Your task to perform on an android device: Show me popular games on the Play Store Image 0: 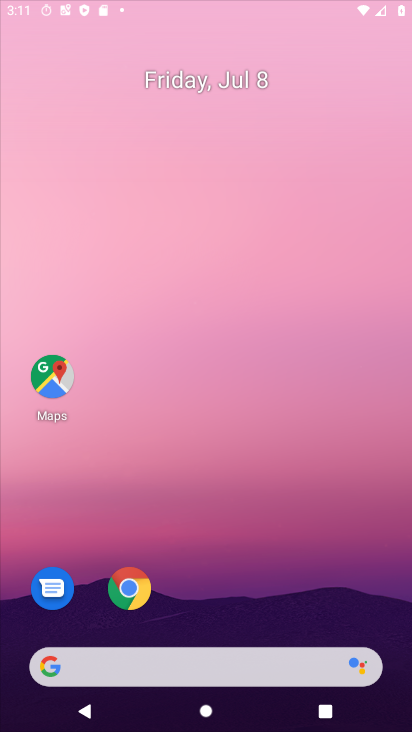
Step 0: press home button
Your task to perform on an android device: Show me popular games on the Play Store Image 1: 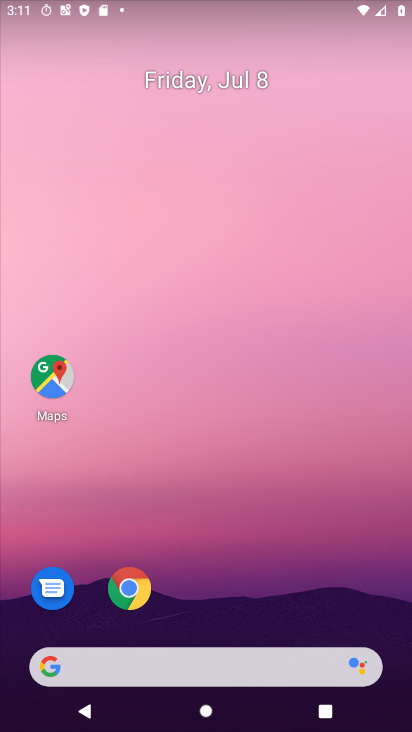
Step 1: press home button
Your task to perform on an android device: Show me popular games on the Play Store Image 2: 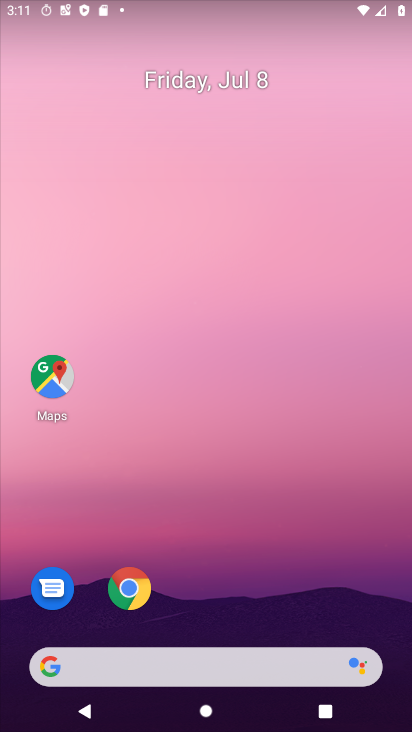
Step 2: drag from (254, 636) to (308, 158)
Your task to perform on an android device: Show me popular games on the Play Store Image 3: 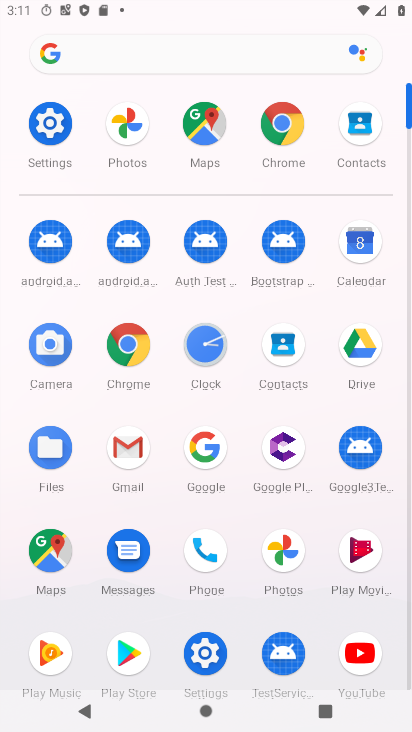
Step 3: click (126, 653)
Your task to perform on an android device: Show me popular games on the Play Store Image 4: 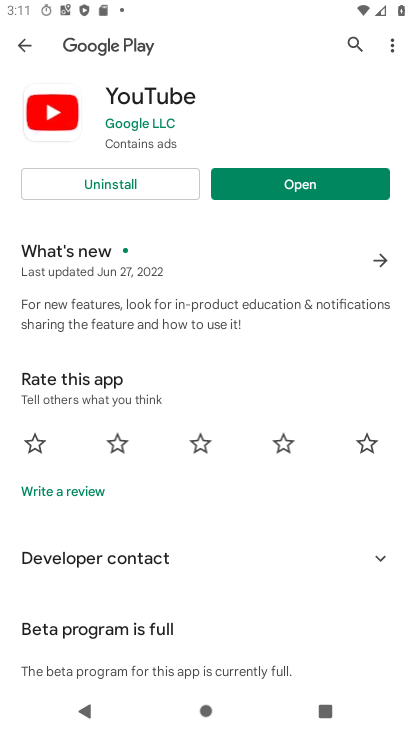
Step 4: press back button
Your task to perform on an android device: Show me popular games on the Play Store Image 5: 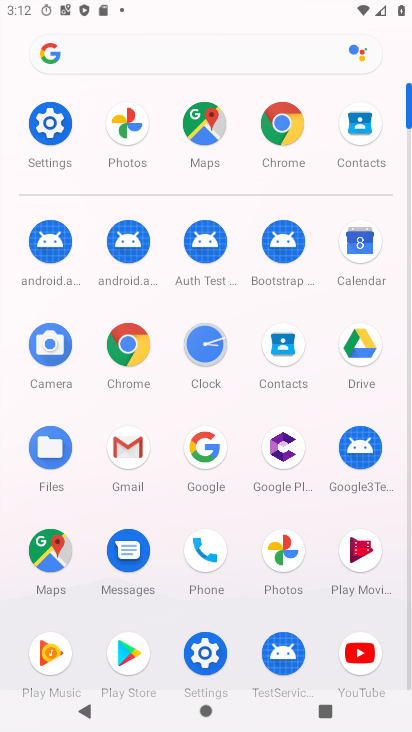
Step 5: click (125, 667)
Your task to perform on an android device: Show me popular games on the Play Store Image 6: 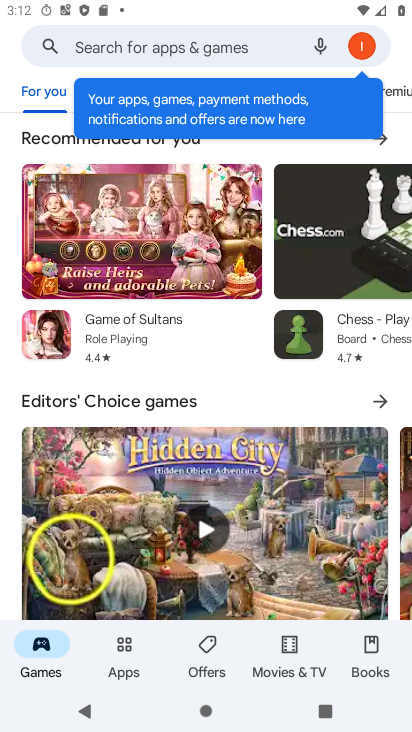
Step 6: click (41, 648)
Your task to perform on an android device: Show me popular games on the Play Store Image 7: 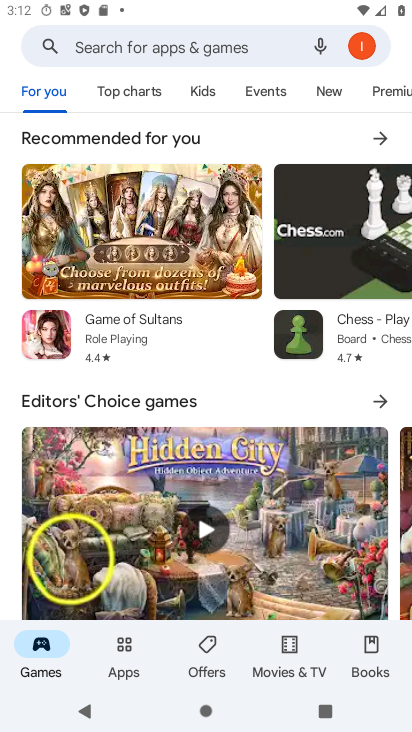
Step 7: drag from (353, 87) to (27, 91)
Your task to perform on an android device: Show me popular games on the Play Store Image 8: 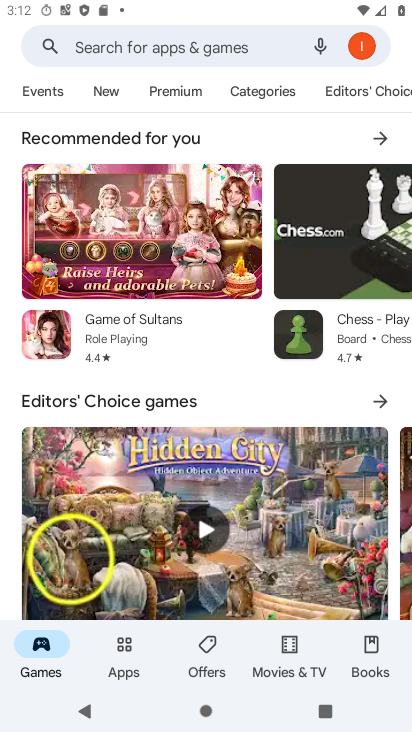
Step 8: click (254, 94)
Your task to perform on an android device: Show me popular games on the Play Store Image 9: 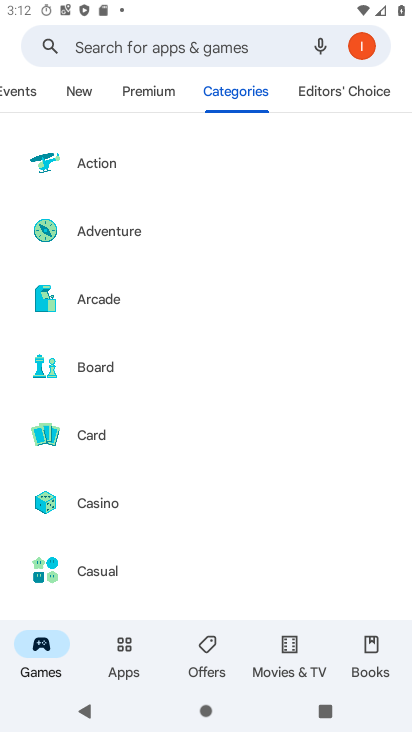
Step 9: task complete